Your task to perform on an android device: open wifi settings Image 0: 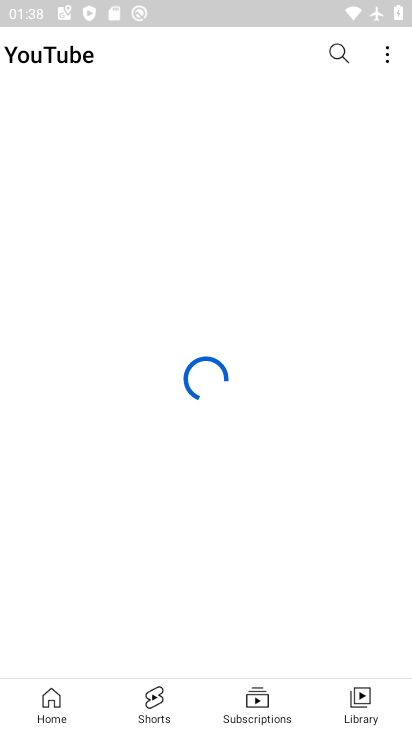
Step 0: press back button
Your task to perform on an android device: open wifi settings Image 1: 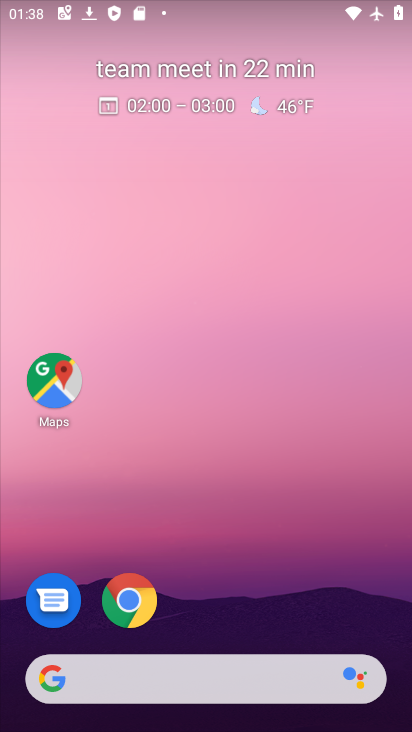
Step 1: drag from (192, 632) to (133, 13)
Your task to perform on an android device: open wifi settings Image 2: 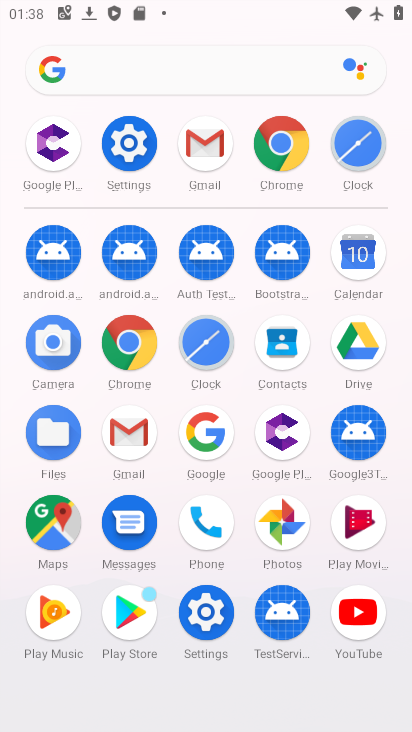
Step 2: click (133, 157)
Your task to perform on an android device: open wifi settings Image 3: 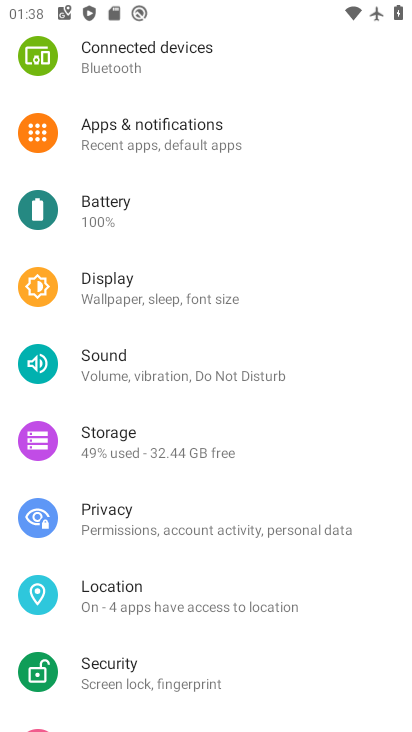
Step 3: drag from (133, 157) to (140, 468)
Your task to perform on an android device: open wifi settings Image 4: 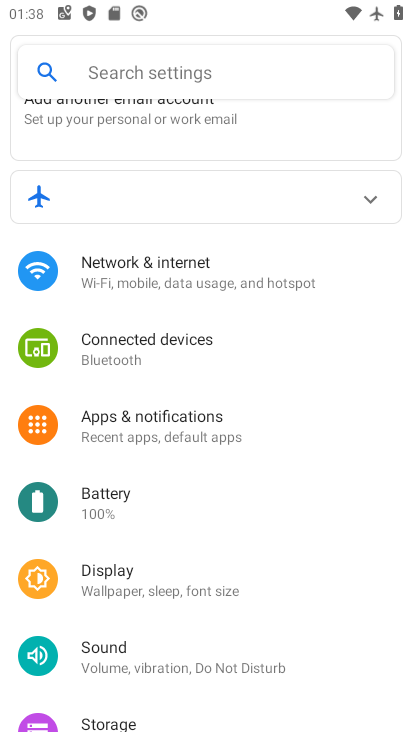
Step 4: click (120, 271)
Your task to perform on an android device: open wifi settings Image 5: 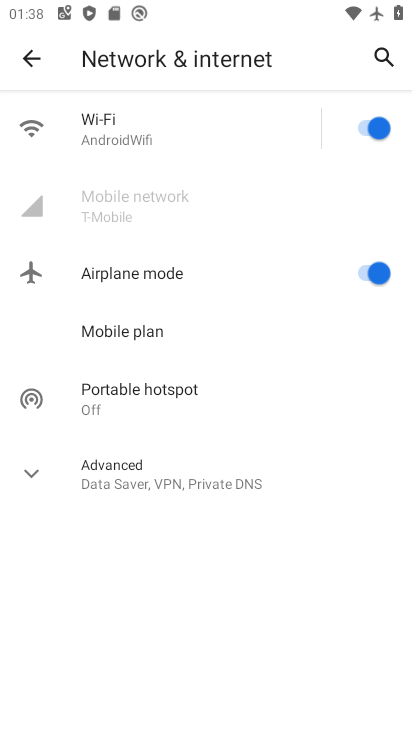
Step 5: click (139, 139)
Your task to perform on an android device: open wifi settings Image 6: 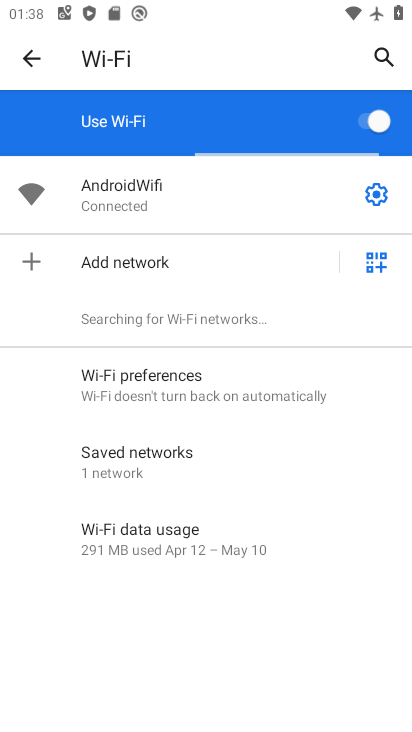
Step 6: task complete